Your task to perform on an android device: change the upload size in google photos Image 0: 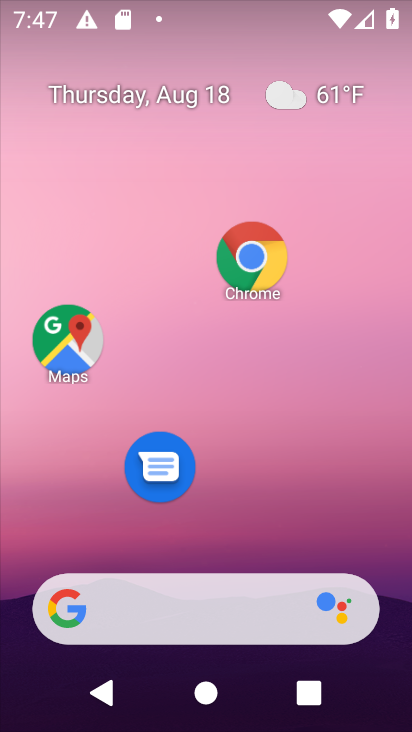
Step 0: drag from (266, 553) to (267, 173)
Your task to perform on an android device: change the upload size in google photos Image 1: 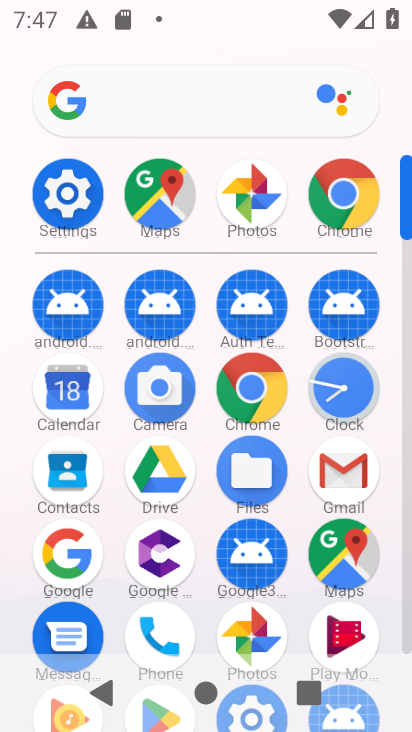
Step 1: click (265, 190)
Your task to perform on an android device: change the upload size in google photos Image 2: 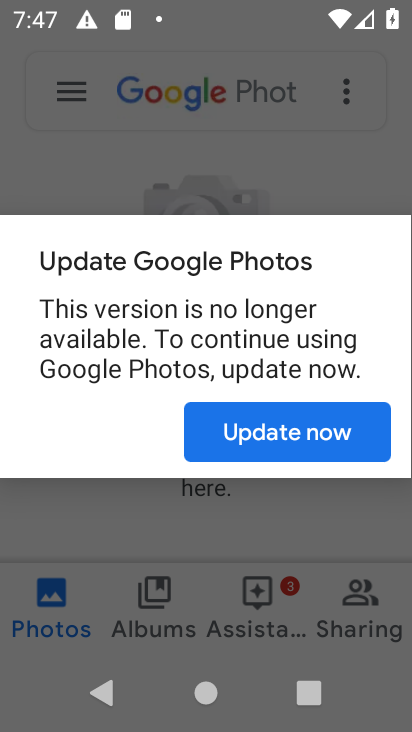
Step 2: click (313, 178)
Your task to perform on an android device: change the upload size in google photos Image 3: 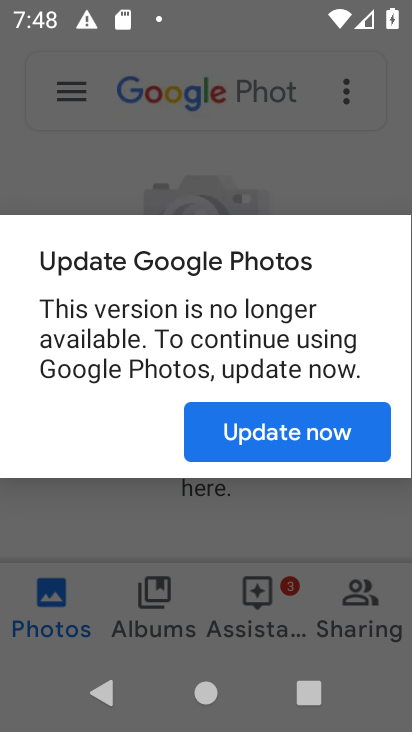
Step 3: task complete